Your task to perform on an android device: turn off airplane mode Image 0: 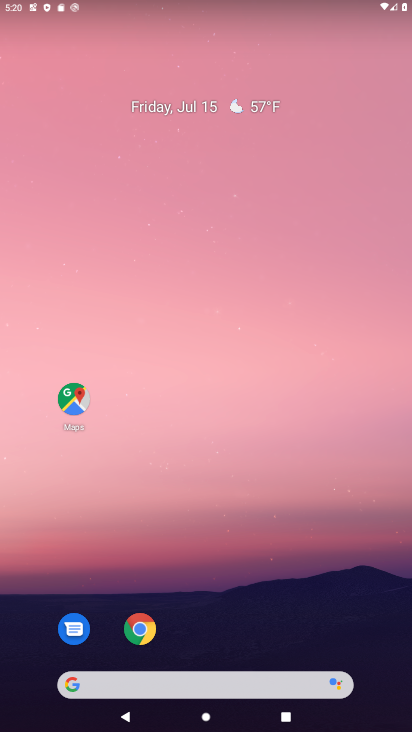
Step 0: press home button
Your task to perform on an android device: turn off airplane mode Image 1: 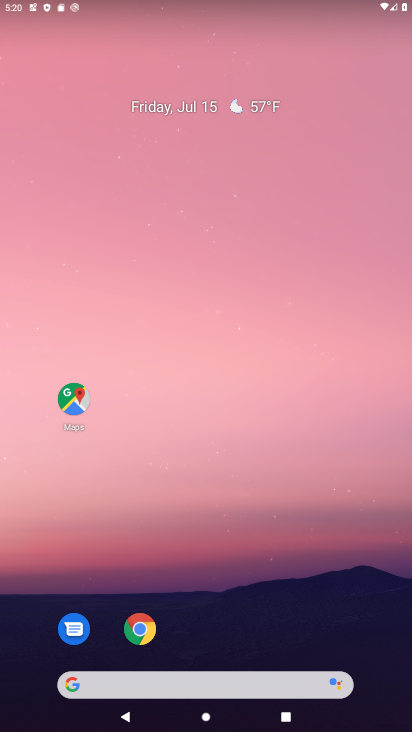
Step 1: drag from (276, 655) to (275, 131)
Your task to perform on an android device: turn off airplane mode Image 2: 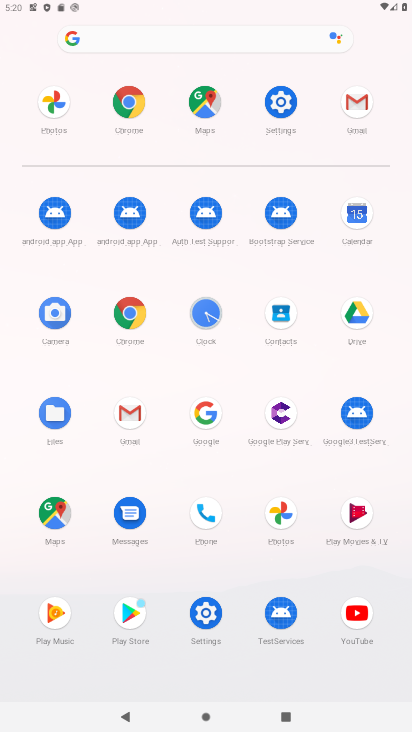
Step 2: click (288, 112)
Your task to perform on an android device: turn off airplane mode Image 3: 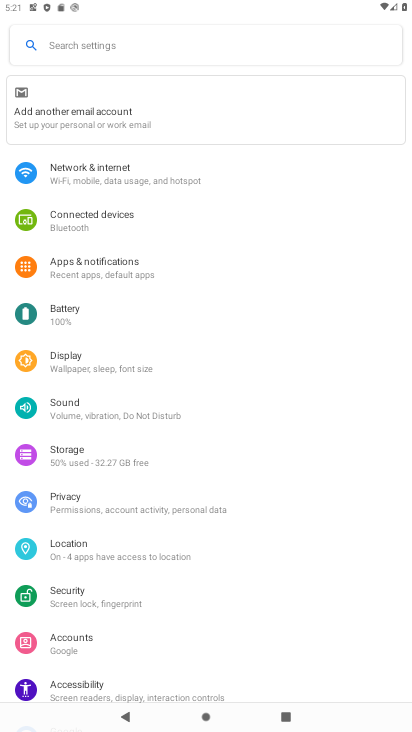
Step 3: click (123, 162)
Your task to perform on an android device: turn off airplane mode Image 4: 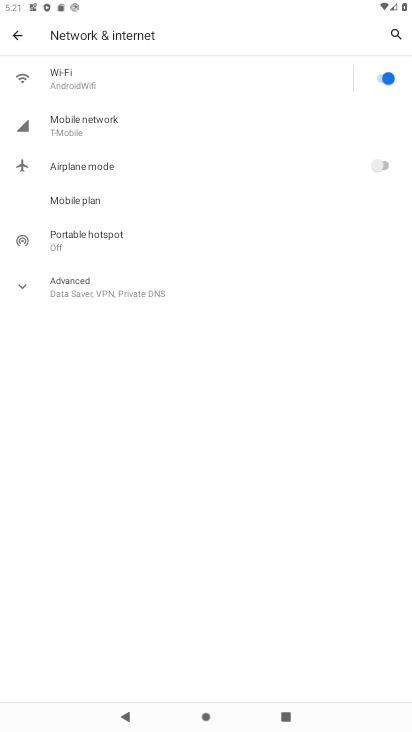
Step 4: task complete